Your task to perform on an android device: see sites visited before in the chrome app Image 0: 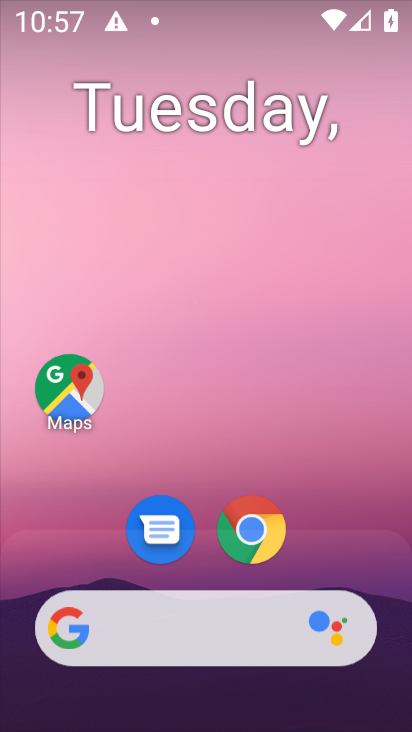
Step 0: drag from (385, 566) to (283, 47)
Your task to perform on an android device: see sites visited before in the chrome app Image 1: 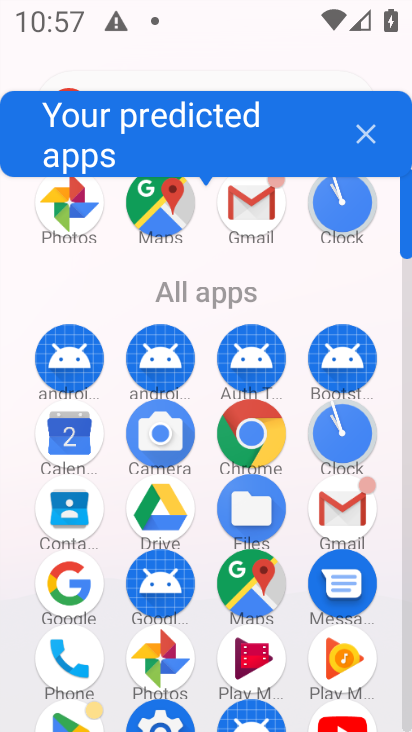
Step 1: click (256, 427)
Your task to perform on an android device: see sites visited before in the chrome app Image 2: 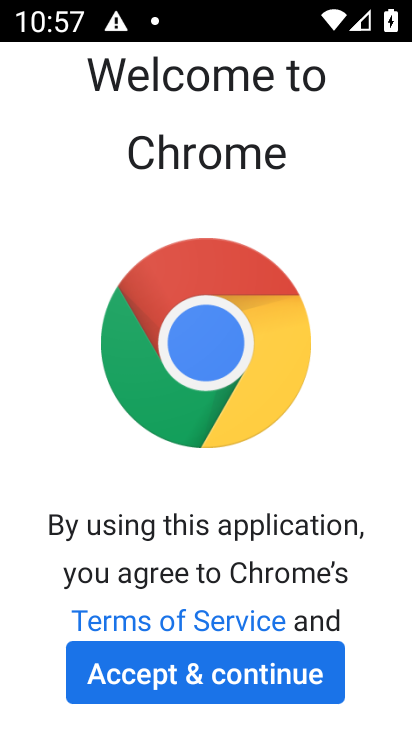
Step 2: click (312, 688)
Your task to perform on an android device: see sites visited before in the chrome app Image 3: 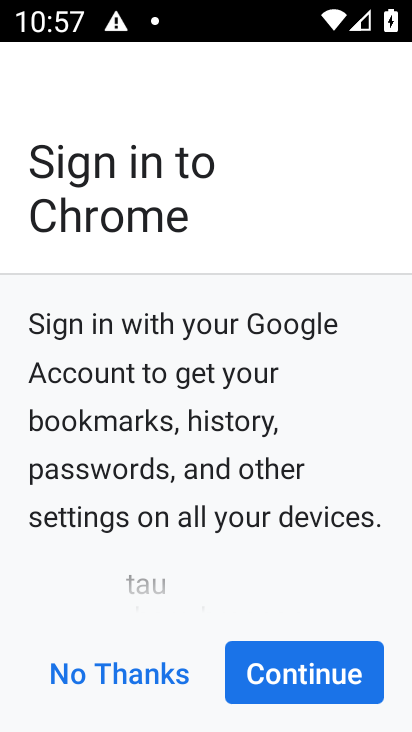
Step 3: click (328, 683)
Your task to perform on an android device: see sites visited before in the chrome app Image 4: 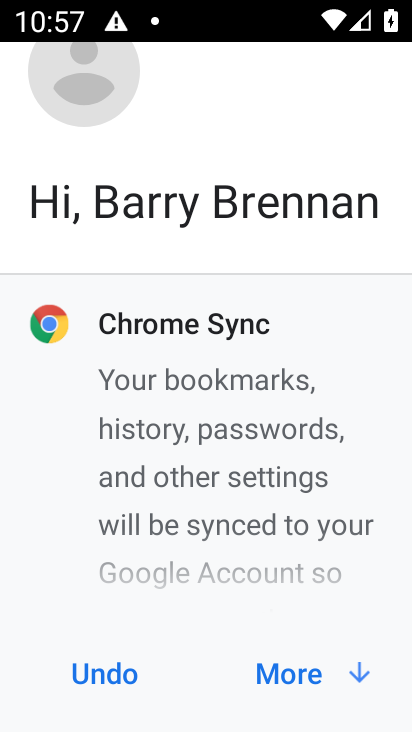
Step 4: click (328, 683)
Your task to perform on an android device: see sites visited before in the chrome app Image 5: 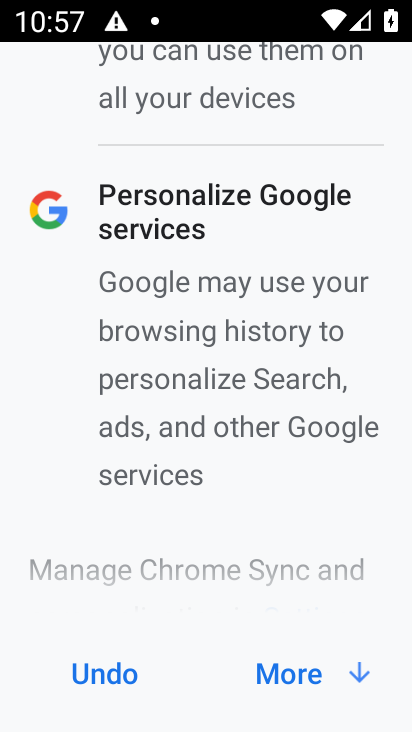
Step 5: click (328, 683)
Your task to perform on an android device: see sites visited before in the chrome app Image 6: 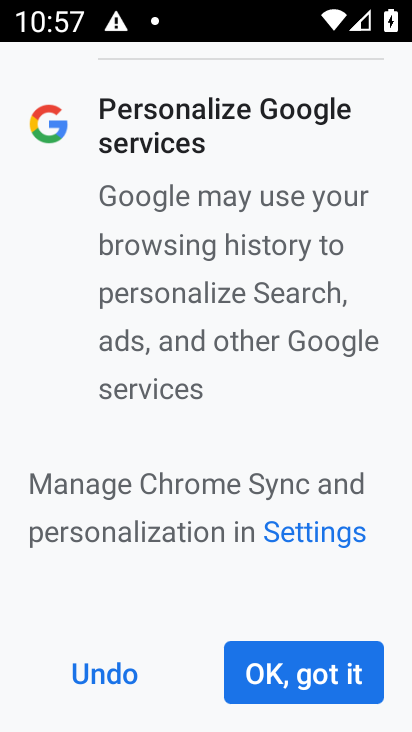
Step 6: click (328, 683)
Your task to perform on an android device: see sites visited before in the chrome app Image 7: 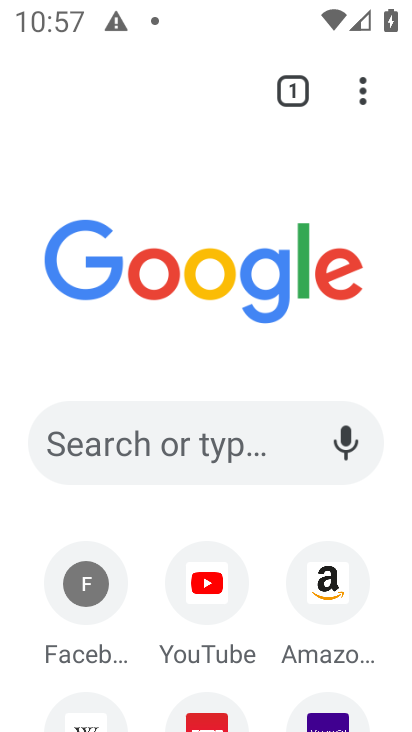
Step 7: click (371, 103)
Your task to perform on an android device: see sites visited before in the chrome app Image 8: 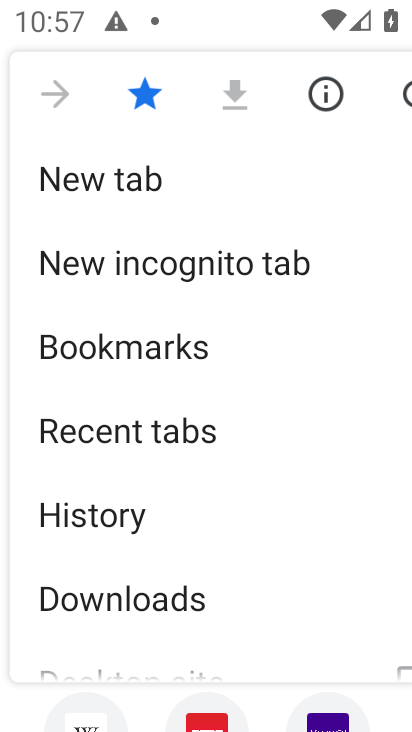
Step 8: click (184, 520)
Your task to perform on an android device: see sites visited before in the chrome app Image 9: 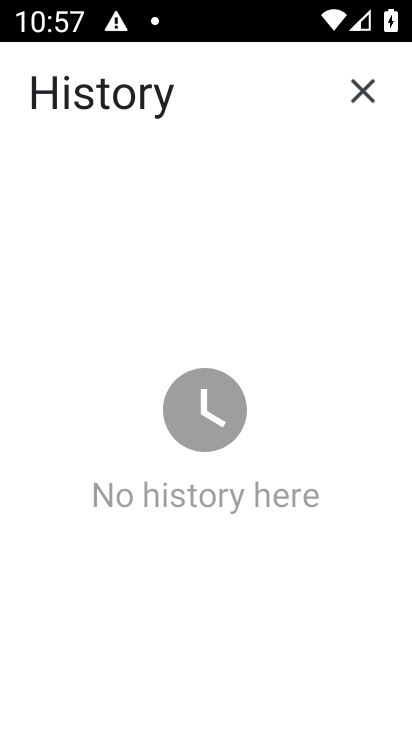
Step 9: task complete